Your task to perform on an android device: Search for Italian restaurants on Maps Image 0: 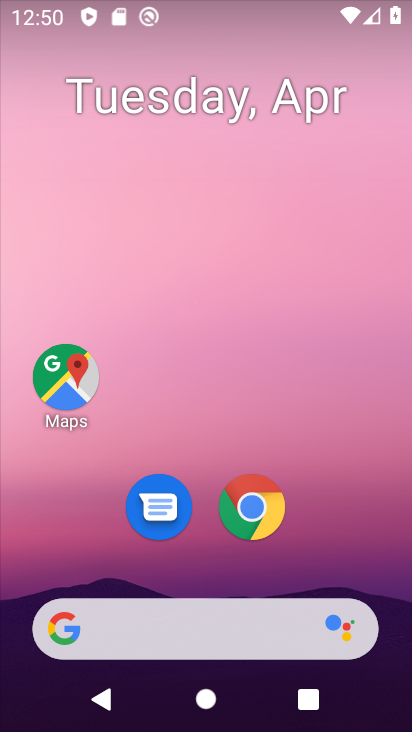
Step 0: click (68, 379)
Your task to perform on an android device: Search for Italian restaurants on Maps Image 1: 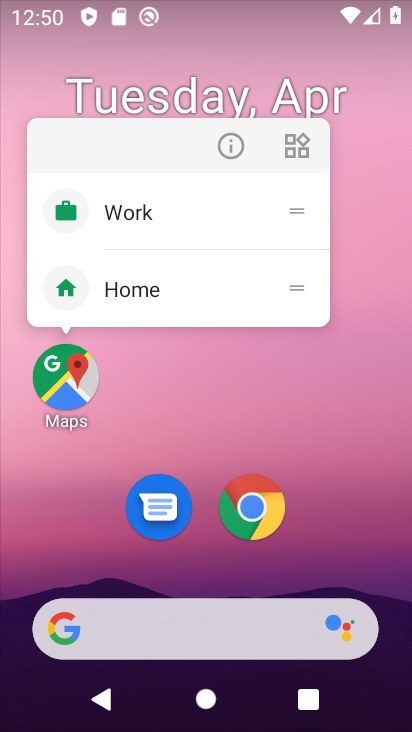
Step 1: click (229, 135)
Your task to perform on an android device: Search for Italian restaurants on Maps Image 2: 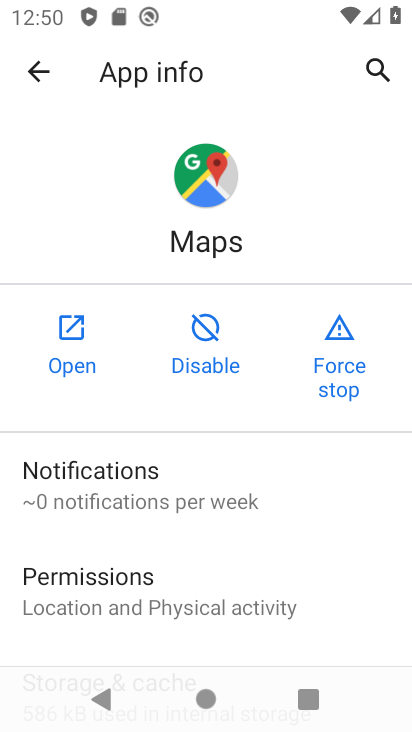
Step 2: click (76, 343)
Your task to perform on an android device: Search for Italian restaurants on Maps Image 3: 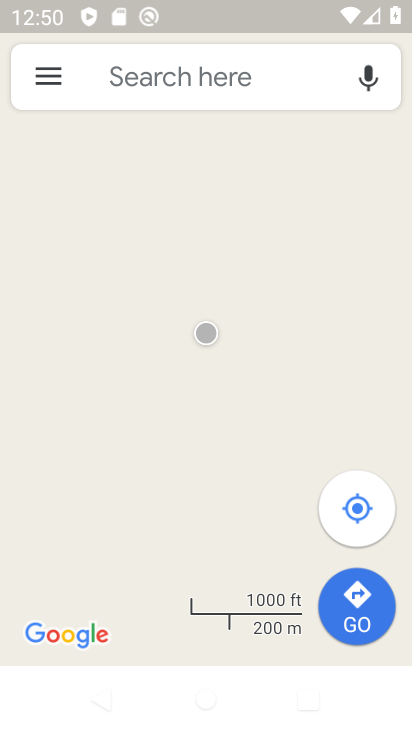
Step 3: click (149, 98)
Your task to perform on an android device: Search for Italian restaurants on Maps Image 4: 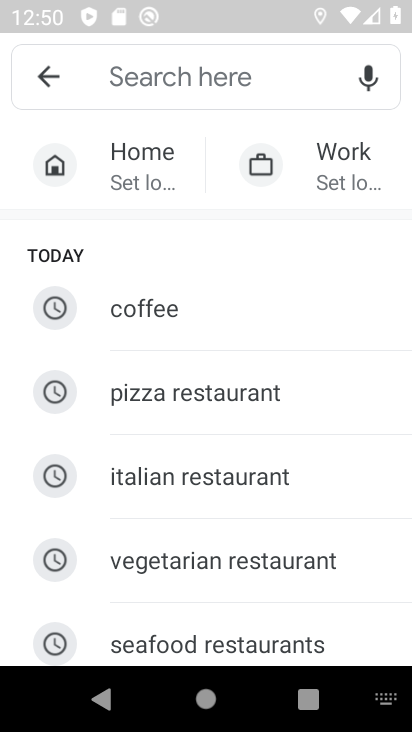
Step 4: type "italian restaurants"
Your task to perform on an android device: Search for Italian restaurants on Maps Image 5: 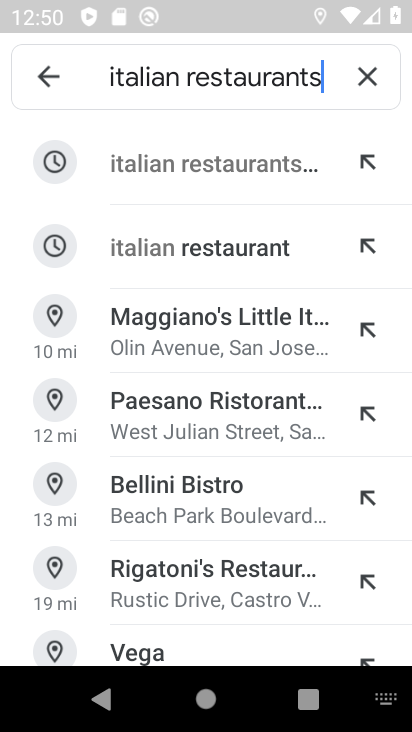
Step 5: click (132, 172)
Your task to perform on an android device: Search for Italian restaurants on Maps Image 6: 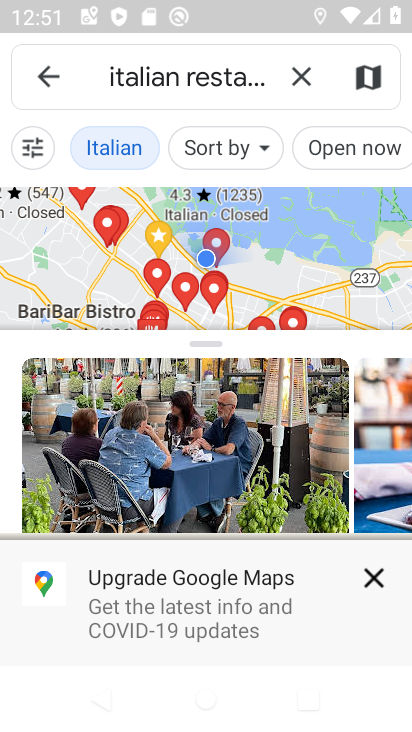
Step 6: task complete